Your task to perform on an android device: install app "Google Sheets" Image 0: 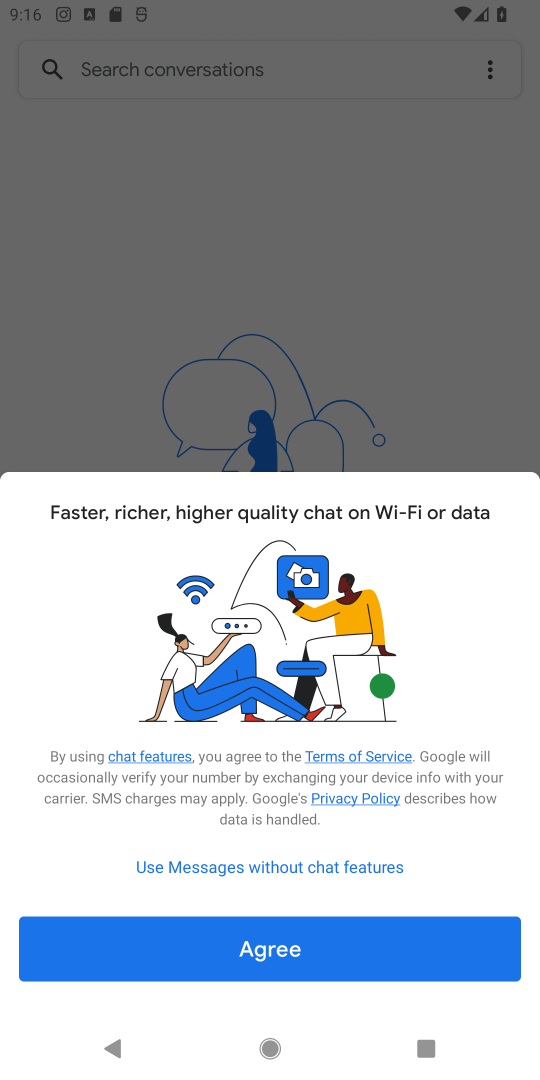
Step 0: press home button
Your task to perform on an android device: install app "Google Sheets" Image 1: 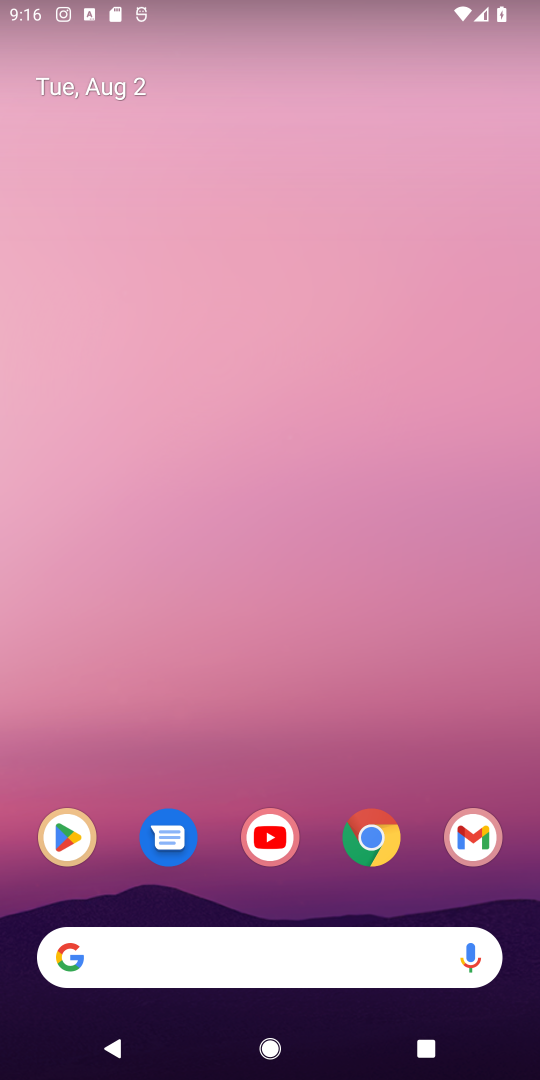
Step 1: click (61, 847)
Your task to perform on an android device: install app "Google Sheets" Image 2: 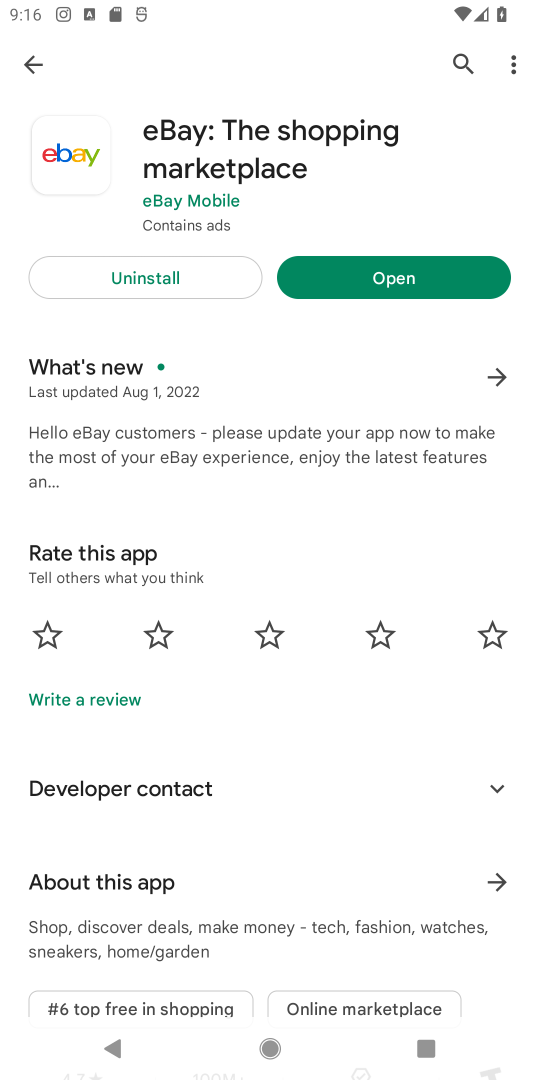
Step 2: click (463, 65)
Your task to perform on an android device: install app "Google Sheets" Image 3: 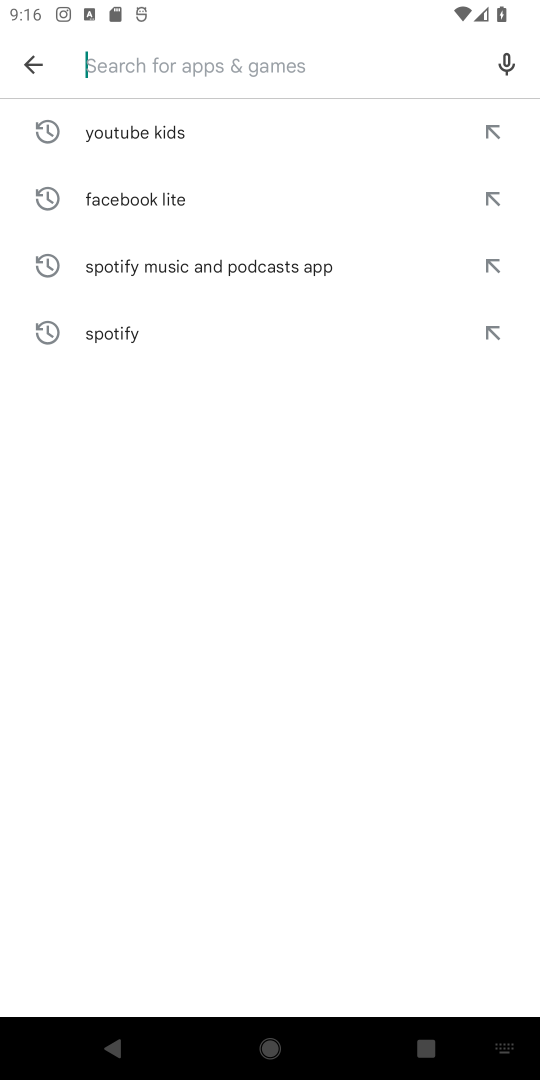
Step 3: type "Google Sheets"
Your task to perform on an android device: install app "Google Sheets" Image 4: 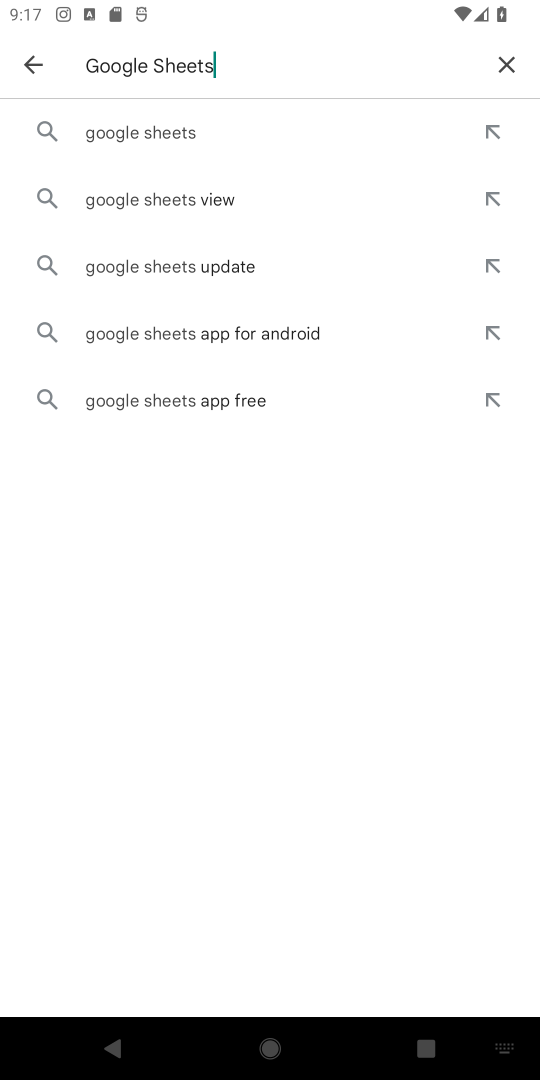
Step 4: click (145, 140)
Your task to perform on an android device: install app "Google Sheets" Image 5: 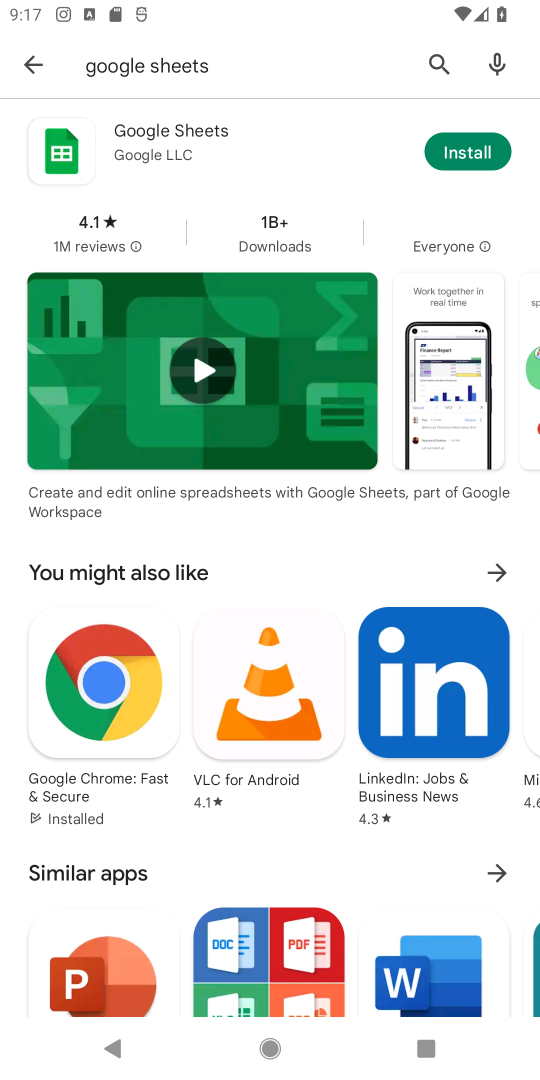
Step 5: click (464, 161)
Your task to perform on an android device: install app "Google Sheets" Image 6: 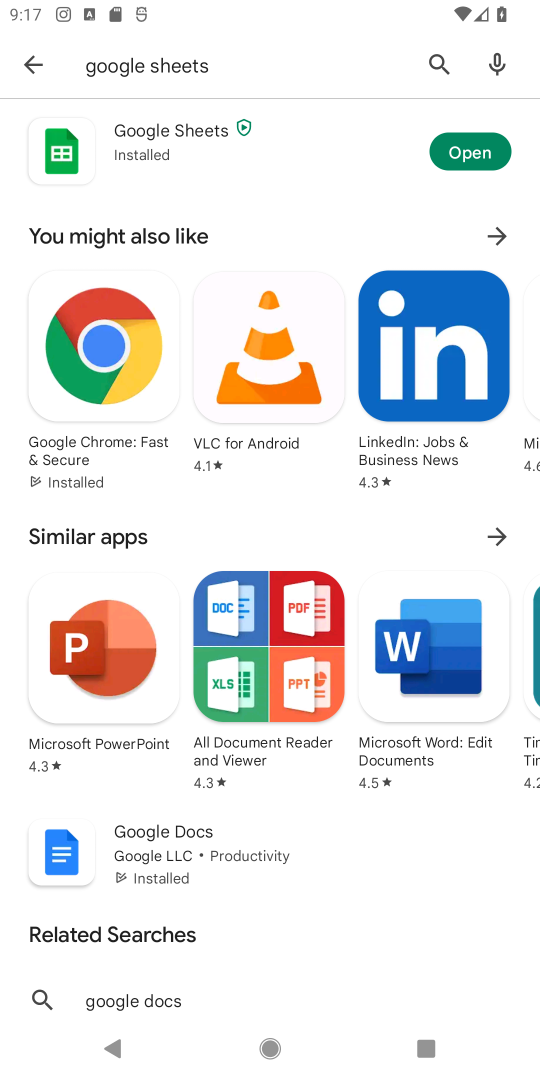
Step 6: task complete